Your task to perform on an android device: set the stopwatch Image 0: 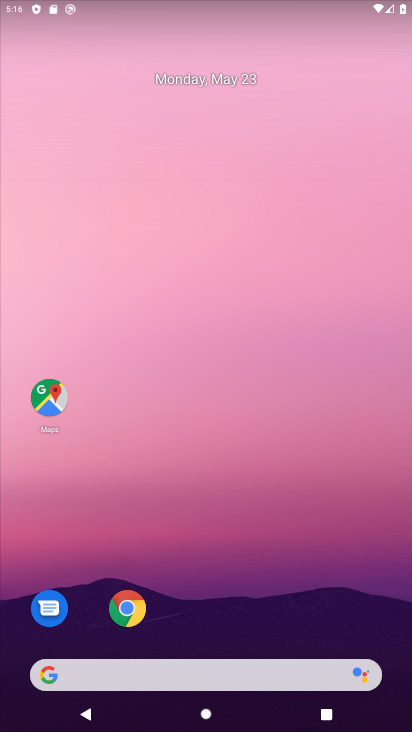
Step 0: drag from (211, 619) to (400, 102)
Your task to perform on an android device: set the stopwatch Image 1: 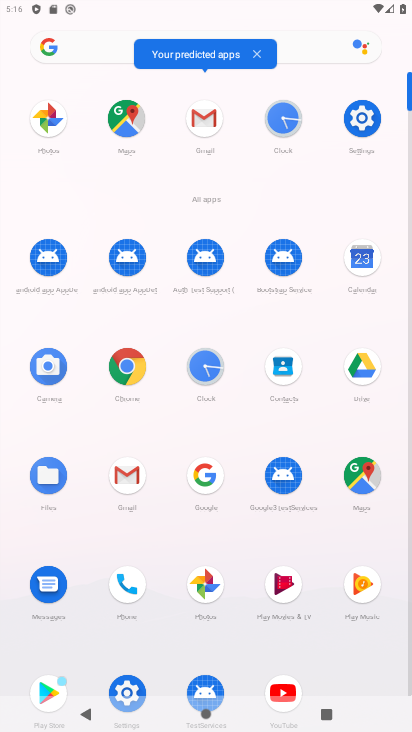
Step 1: click (212, 369)
Your task to perform on an android device: set the stopwatch Image 2: 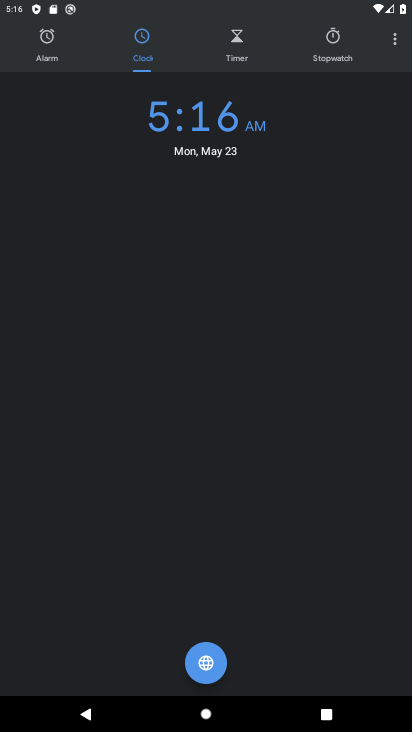
Step 2: click (340, 47)
Your task to perform on an android device: set the stopwatch Image 3: 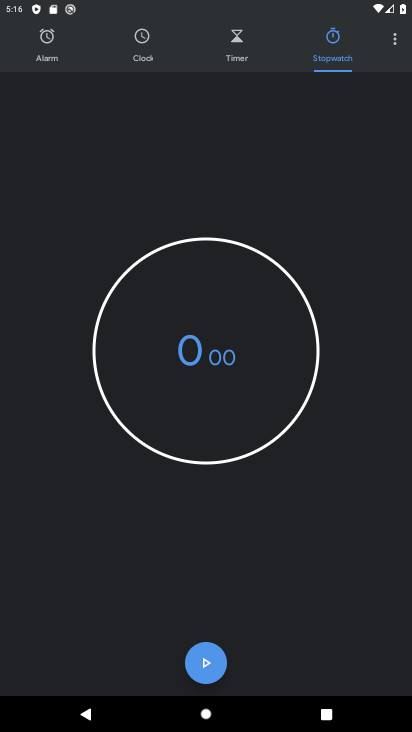
Step 3: click (212, 656)
Your task to perform on an android device: set the stopwatch Image 4: 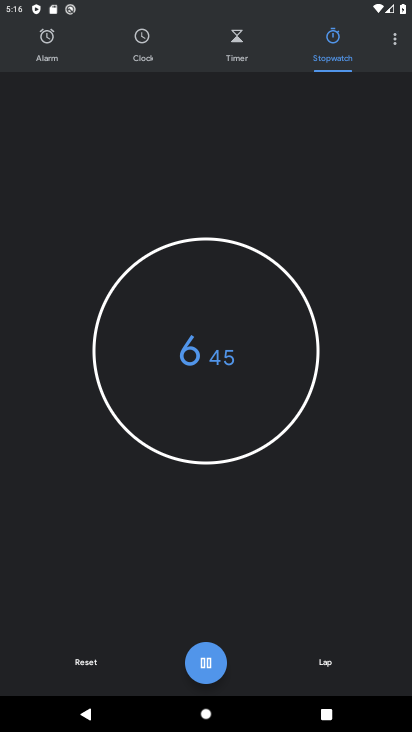
Step 4: task complete